Your task to perform on an android device: Open Wikipedia Image 0: 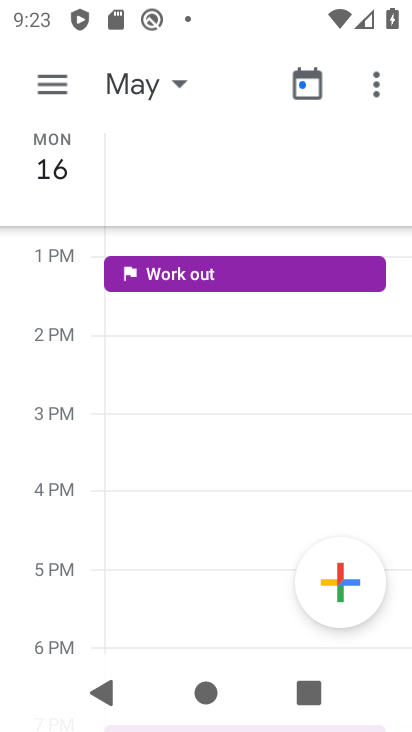
Step 0: press home button
Your task to perform on an android device: Open Wikipedia Image 1: 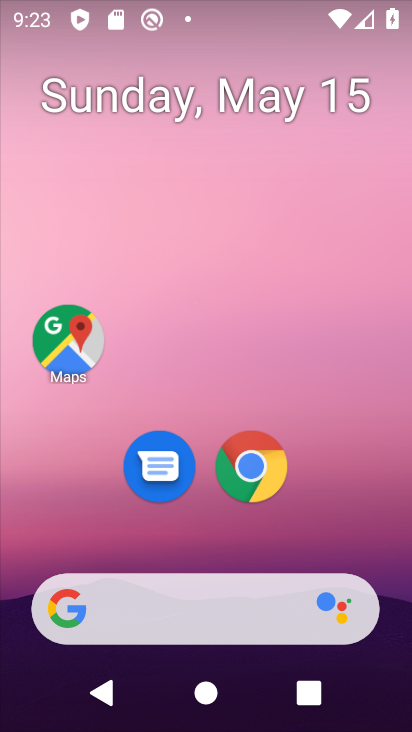
Step 1: drag from (385, 502) to (362, 77)
Your task to perform on an android device: Open Wikipedia Image 2: 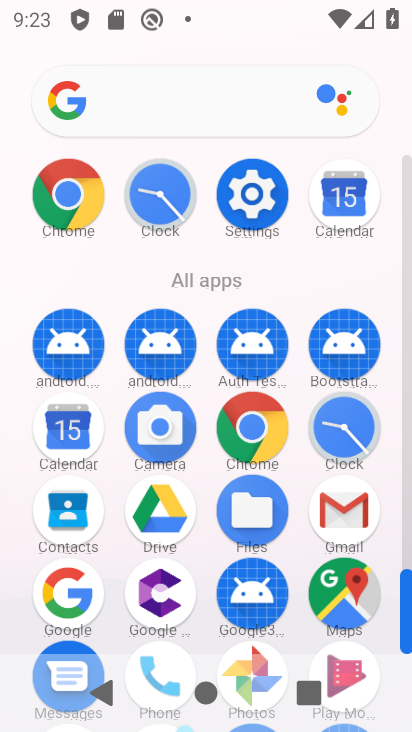
Step 2: click (246, 439)
Your task to perform on an android device: Open Wikipedia Image 3: 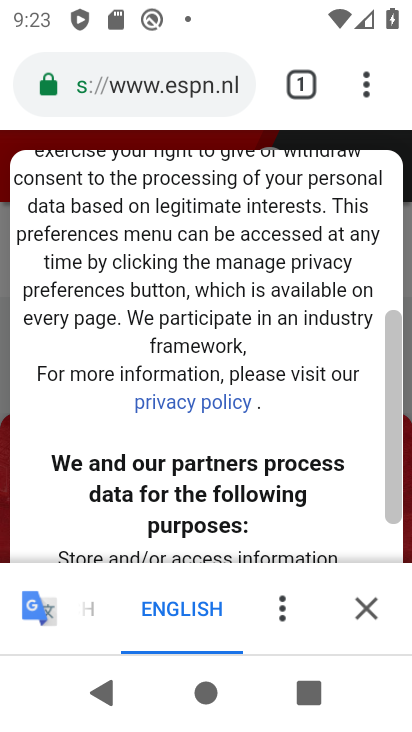
Step 3: click (185, 91)
Your task to perform on an android device: Open Wikipedia Image 4: 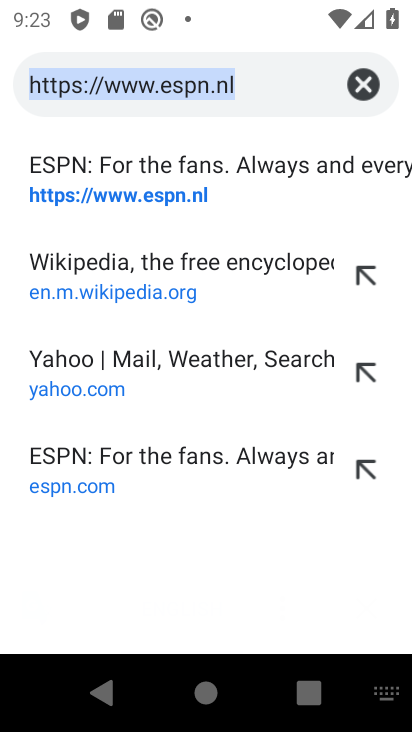
Step 4: type "wikipedia"
Your task to perform on an android device: Open Wikipedia Image 5: 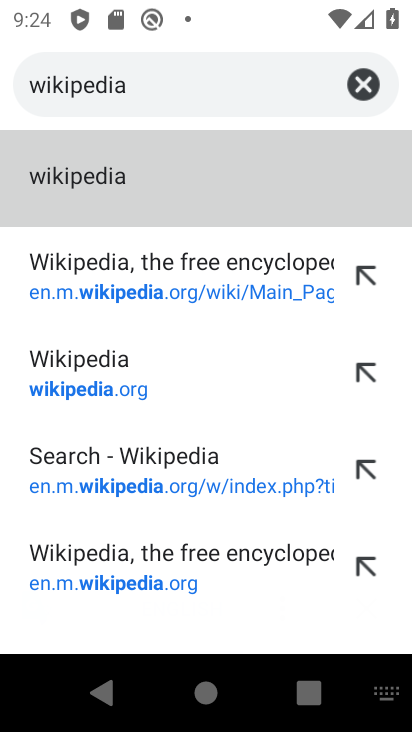
Step 5: click (81, 182)
Your task to perform on an android device: Open Wikipedia Image 6: 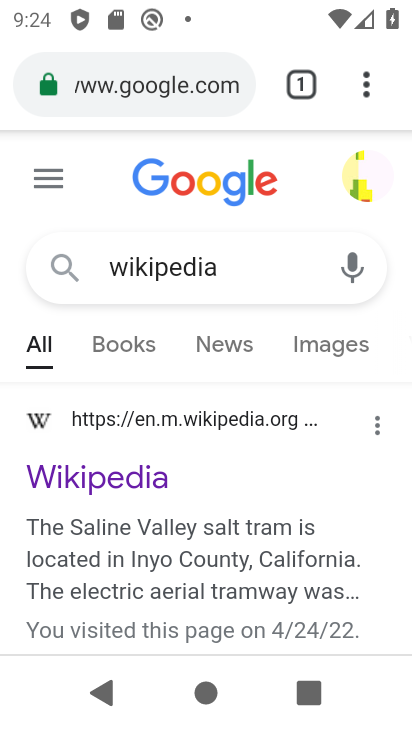
Step 6: click (112, 478)
Your task to perform on an android device: Open Wikipedia Image 7: 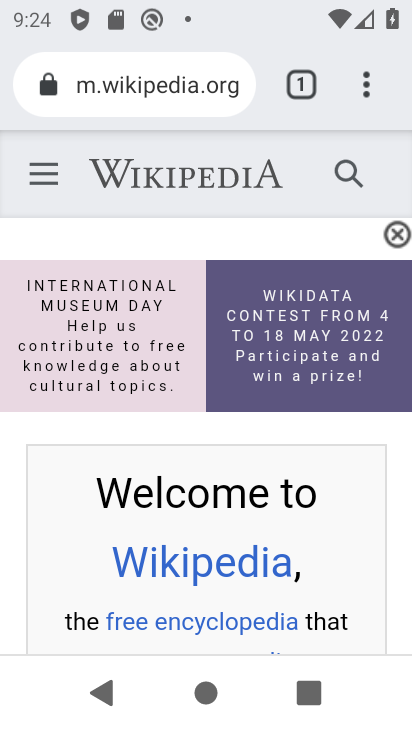
Step 7: task complete